Your task to perform on an android device: toggle sleep mode Image 0: 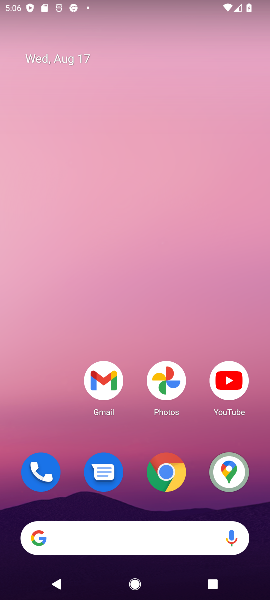
Step 0: drag from (144, 430) to (121, 45)
Your task to perform on an android device: toggle sleep mode Image 1: 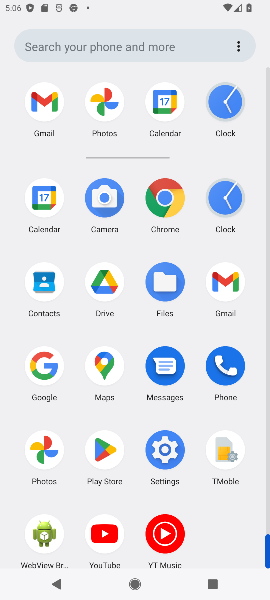
Step 1: click (170, 448)
Your task to perform on an android device: toggle sleep mode Image 2: 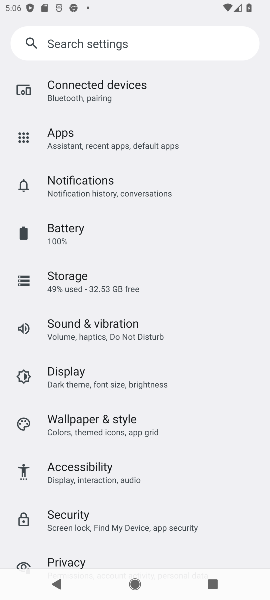
Step 2: click (108, 376)
Your task to perform on an android device: toggle sleep mode Image 3: 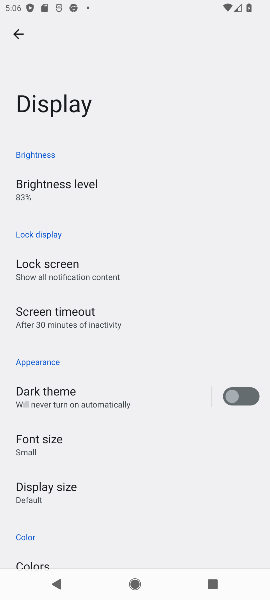
Step 3: click (77, 315)
Your task to perform on an android device: toggle sleep mode Image 4: 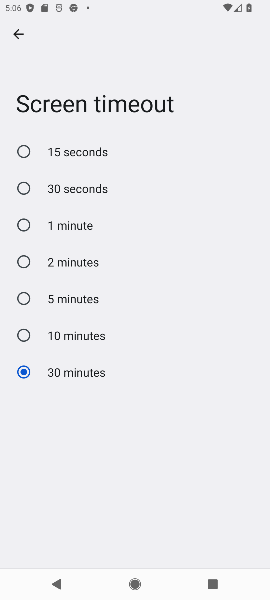
Step 4: click (73, 224)
Your task to perform on an android device: toggle sleep mode Image 5: 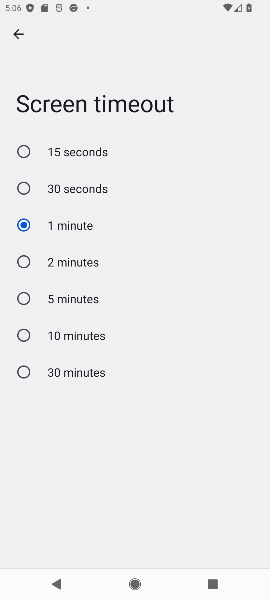
Step 5: task complete